Your task to perform on an android device: Do I have any events today? Image 0: 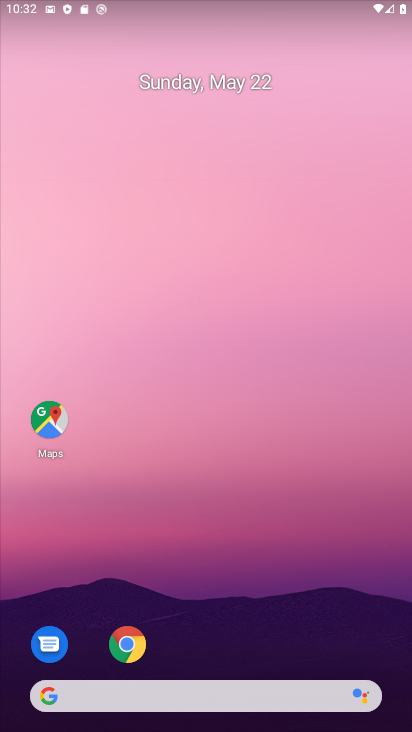
Step 0: press home button
Your task to perform on an android device: Do I have any events today? Image 1: 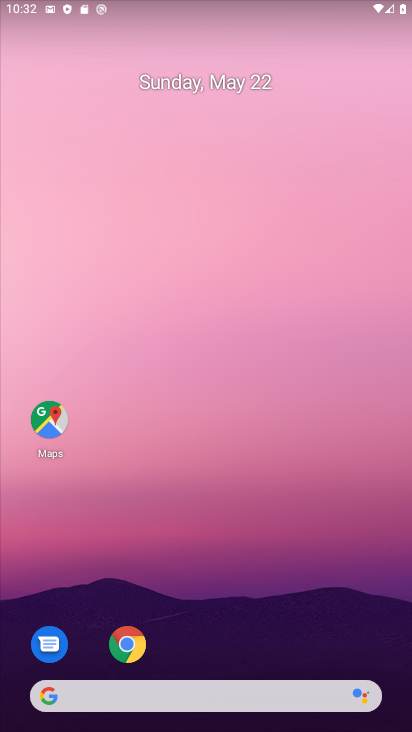
Step 1: drag from (218, 590) to (235, 23)
Your task to perform on an android device: Do I have any events today? Image 2: 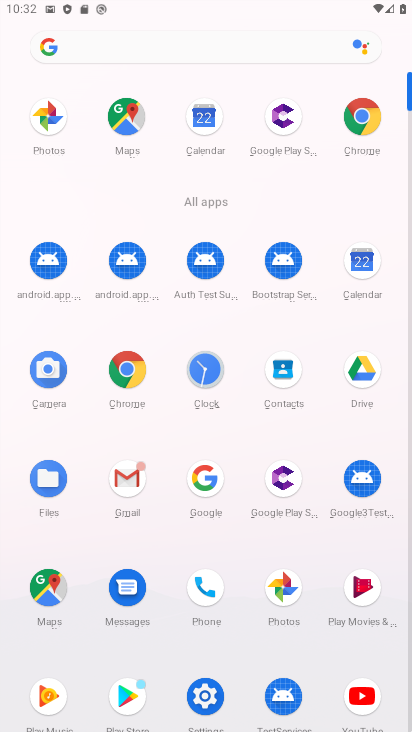
Step 2: click (361, 258)
Your task to perform on an android device: Do I have any events today? Image 3: 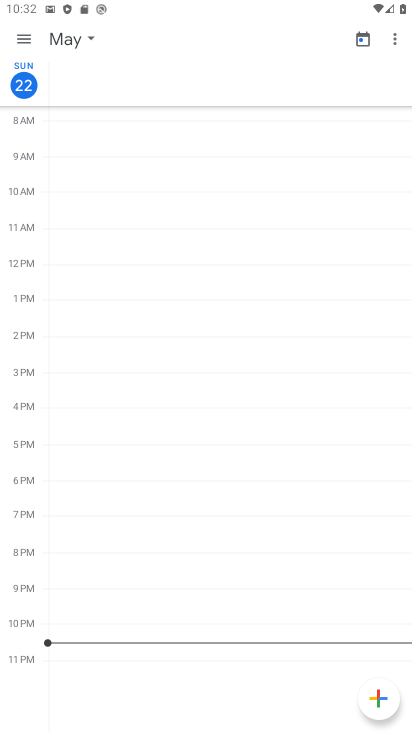
Step 3: click (35, 89)
Your task to perform on an android device: Do I have any events today? Image 4: 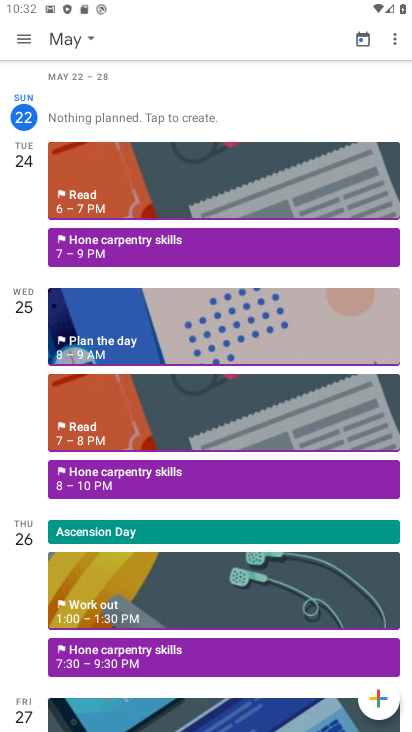
Step 4: click (23, 24)
Your task to perform on an android device: Do I have any events today? Image 5: 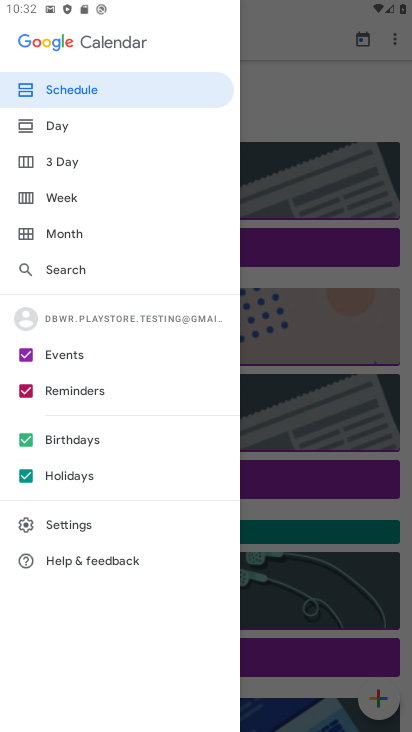
Step 5: click (28, 468)
Your task to perform on an android device: Do I have any events today? Image 6: 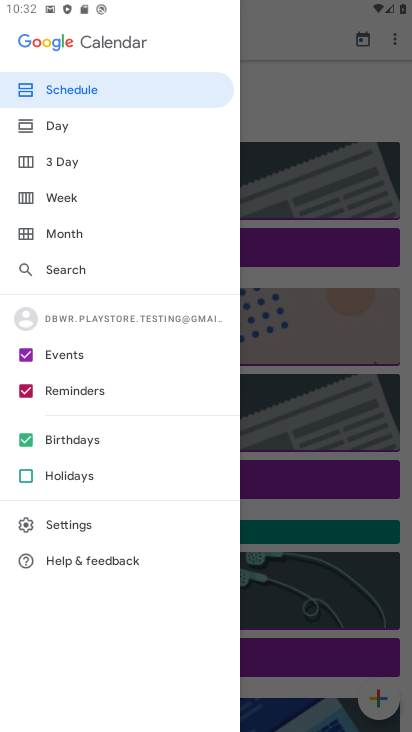
Step 6: click (20, 432)
Your task to perform on an android device: Do I have any events today? Image 7: 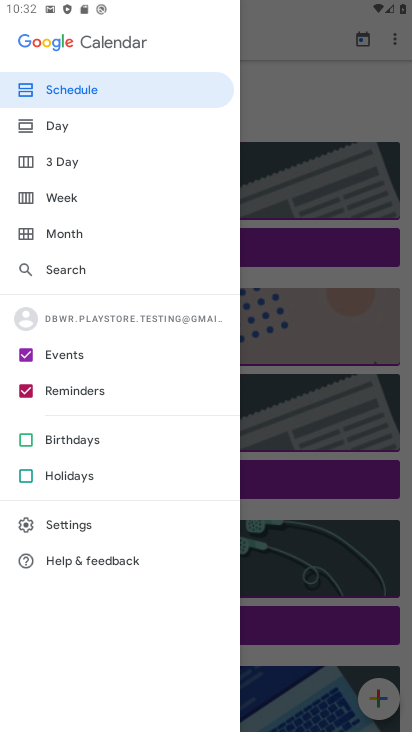
Step 7: click (22, 388)
Your task to perform on an android device: Do I have any events today? Image 8: 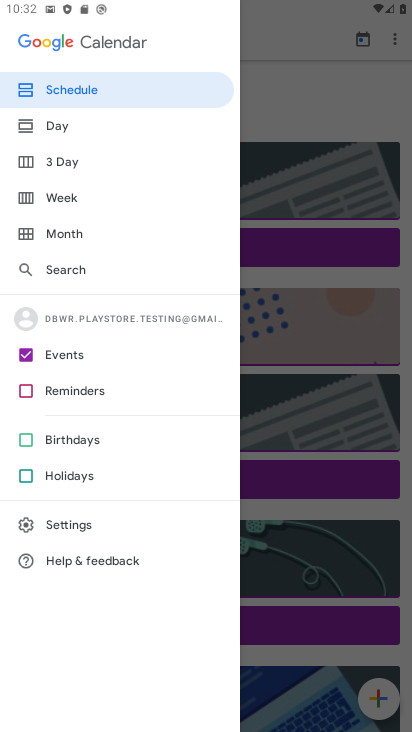
Step 8: click (54, 123)
Your task to perform on an android device: Do I have any events today? Image 9: 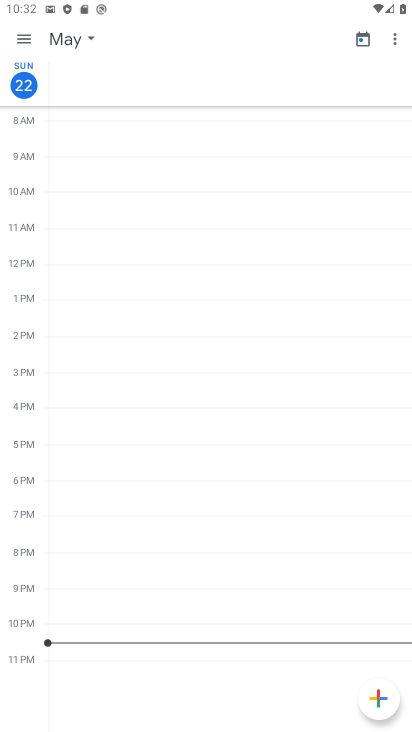
Step 9: task complete